Your task to perform on an android device: What's the weather going to be this weekend? Image 0: 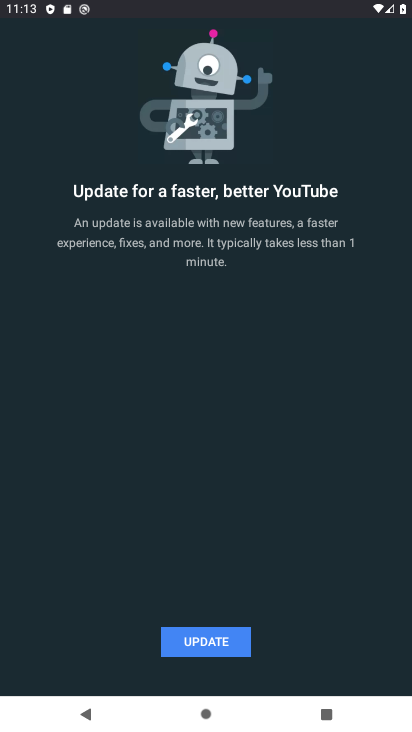
Step 0: press home button
Your task to perform on an android device: What's the weather going to be this weekend? Image 1: 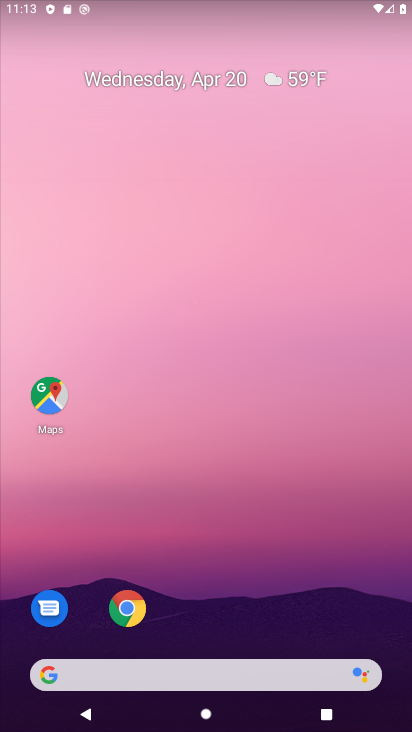
Step 1: drag from (245, 554) to (234, 176)
Your task to perform on an android device: What's the weather going to be this weekend? Image 2: 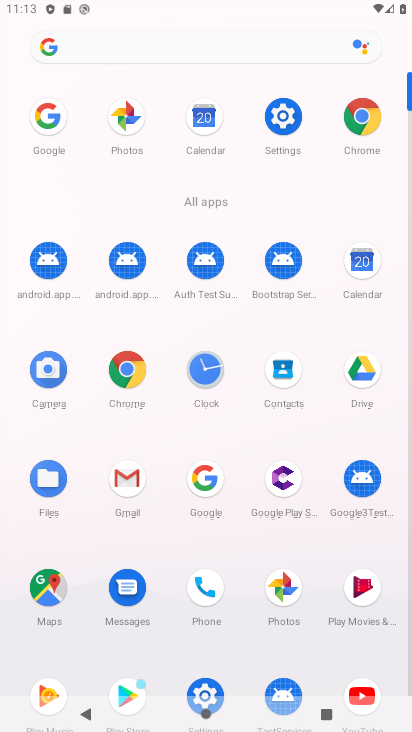
Step 2: click (47, 114)
Your task to perform on an android device: What's the weather going to be this weekend? Image 3: 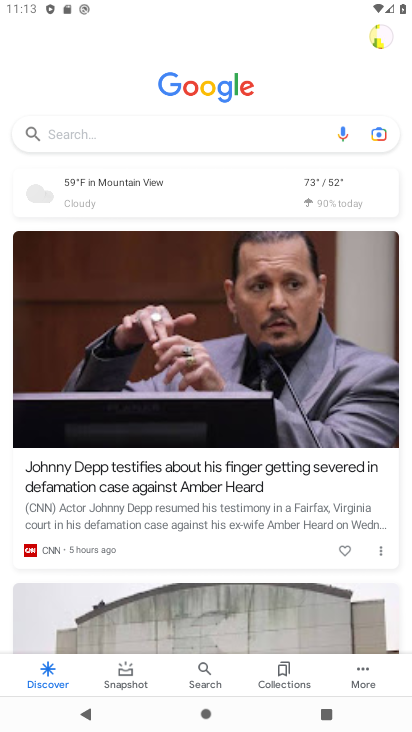
Step 3: click (163, 130)
Your task to perform on an android device: What's the weather going to be this weekend? Image 4: 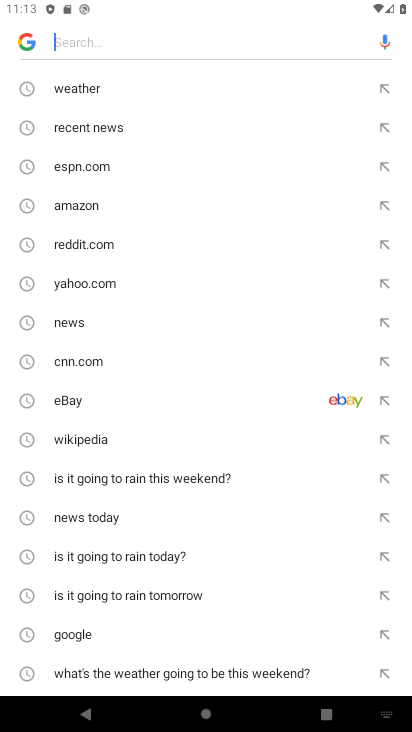
Step 4: click (235, 673)
Your task to perform on an android device: What's the weather going to be this weekend? Image 5: 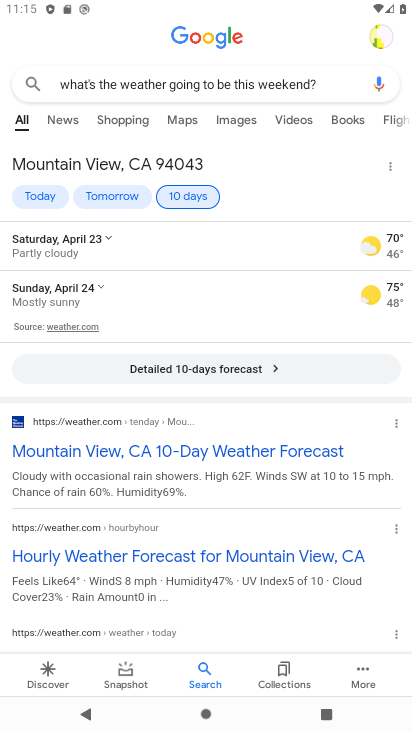
Step 5: task complete